Your task to perform on an android device: Go to eBay Image 0: 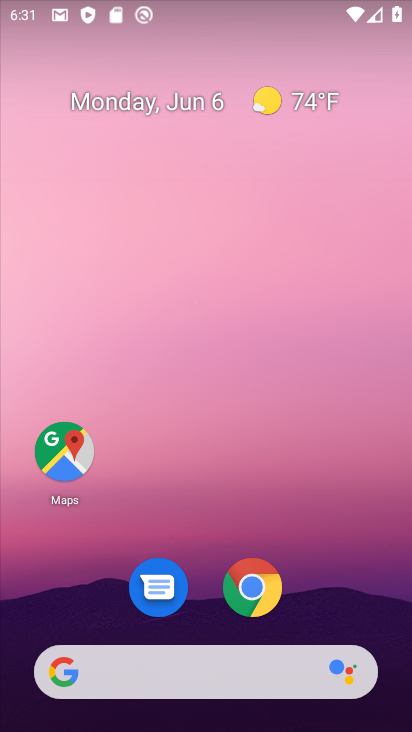
Step 0: drag from (390, 621) to (351, 65)
Your task to perform on an android device: Go to eBay Image 1: 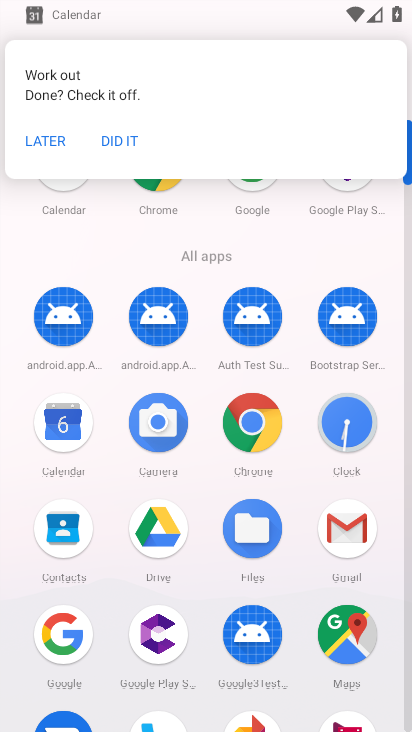
Step 1: click (64, 629)
Your task to perform on an android device: Go to eBay Image 2: 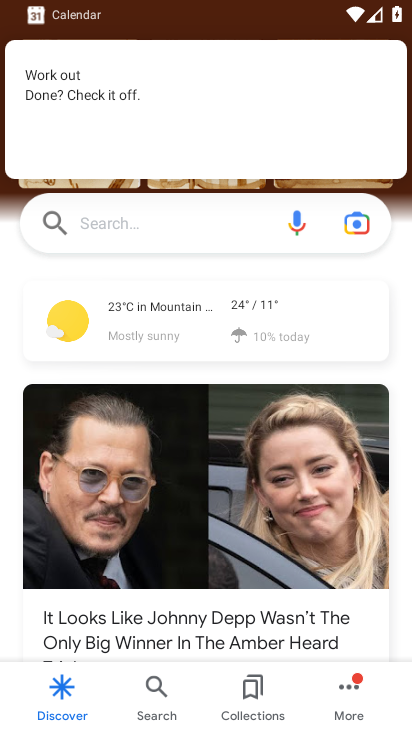
Step 2: click (141, 214)
Your task to perform on an android device: Go to eBay Image 3: 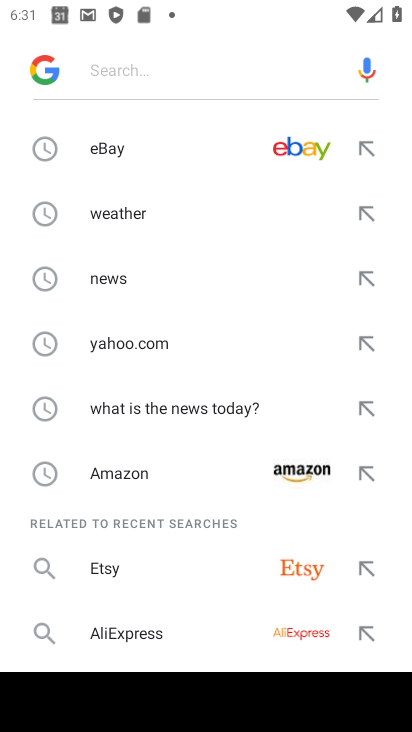
Step 3: click (120, 142)
Your task to perform on an android device: Go to eBay Image 4: 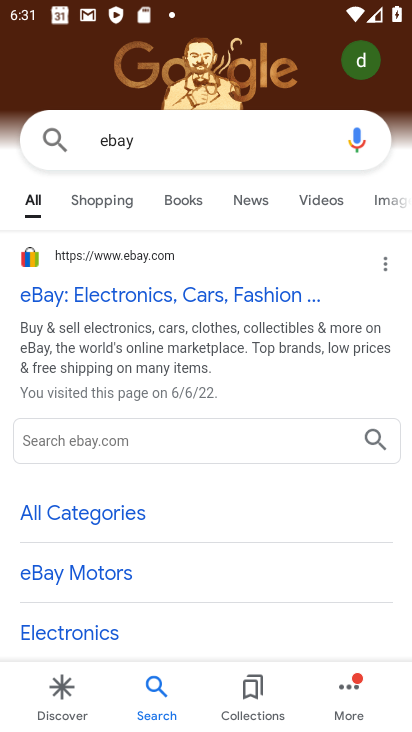
Step 4: task complete